Your task to perform on an android device: Open notification settings Image 0: 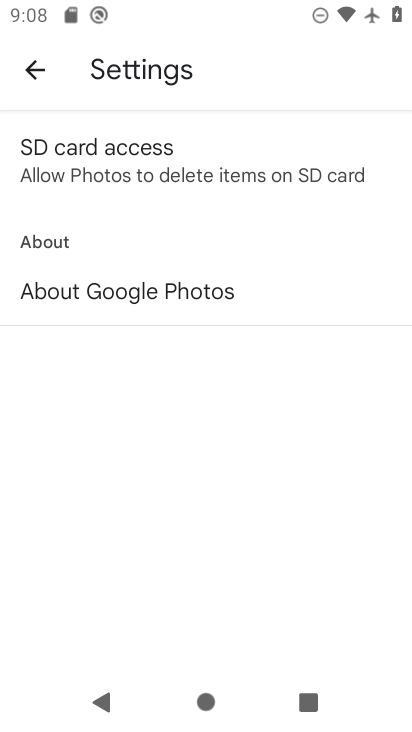
Step 0: press home button
Your task to perform on an android device: Open notification settings Image 1: 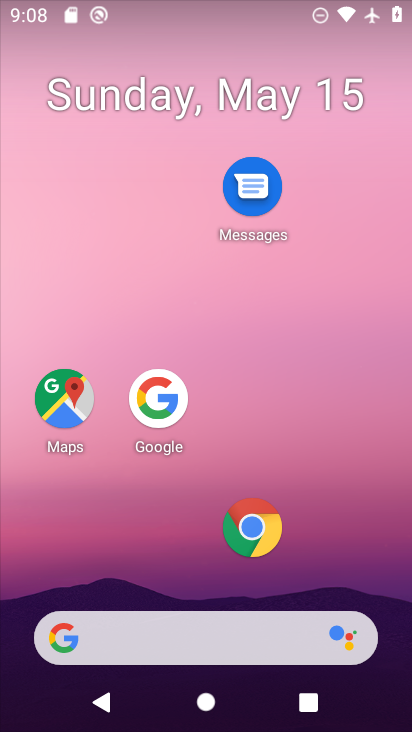
Step 1: drag from (166, 634) to (307, 214)
Your task to perform on an android device: Open notification settings Image 2: 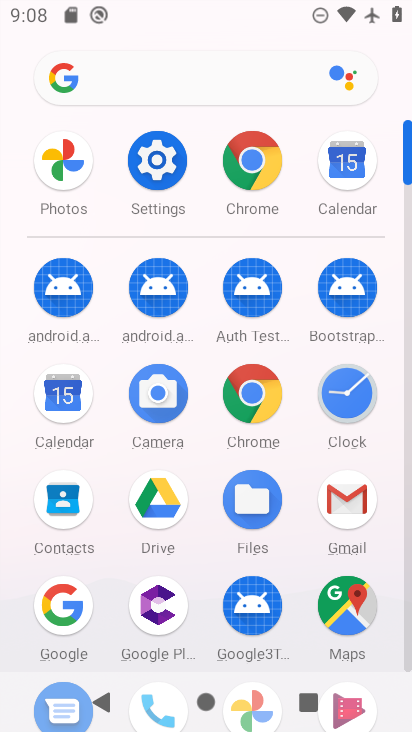
Step 2: click (159, 172)
Your task to perform on an android device: Open notification settings Image 3: 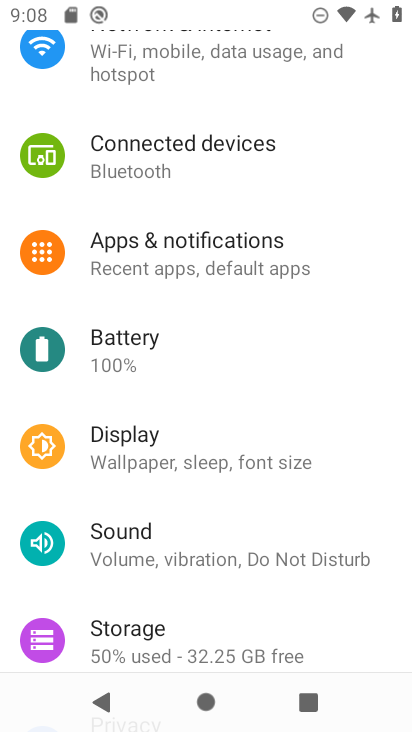
Step 3: click (219, 247)
Your task to perform on an android device: Open notification settings Image 4: 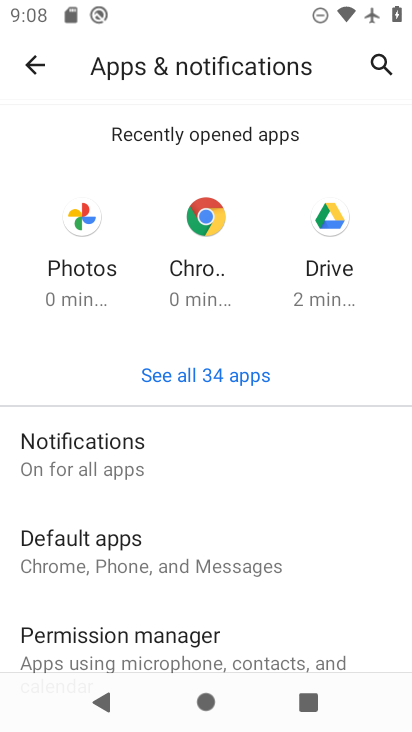
Step 4: click (105, 456)
Your task to perform on an android device: Open notification settings Image 5: 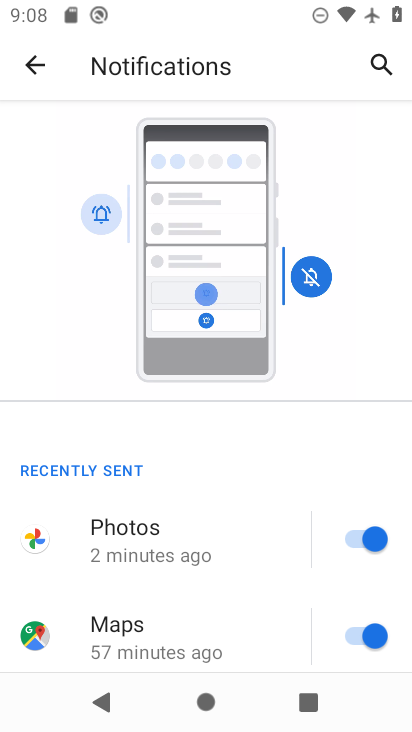
Step 5: task complete